Your task to perform on an android device: Is it going to rain this weekend? Image 0: 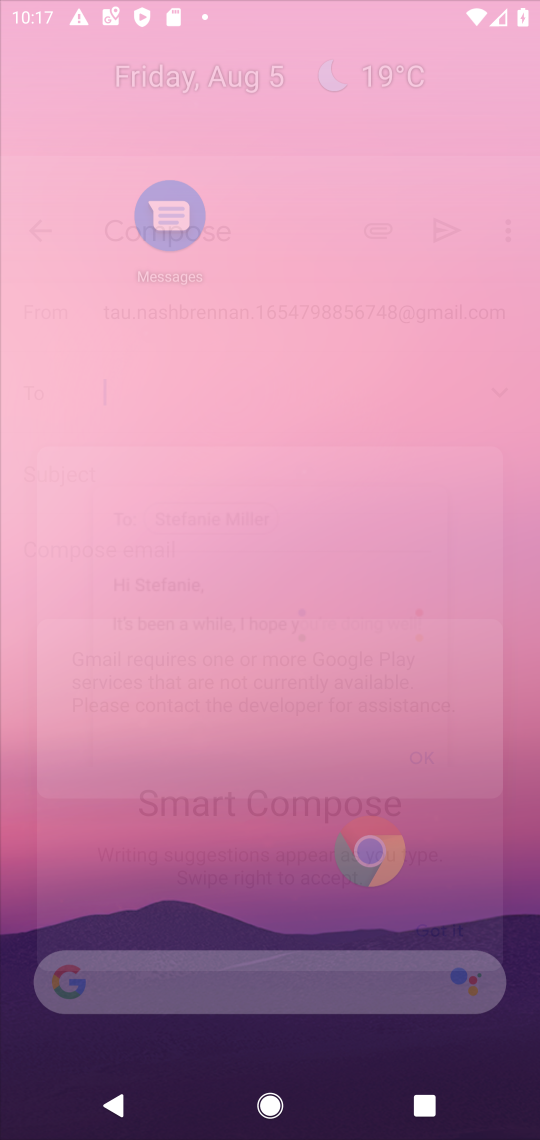
Step 0: press home button
Your task to perform on an android device: Is it going to rain this weekend? Image 1: 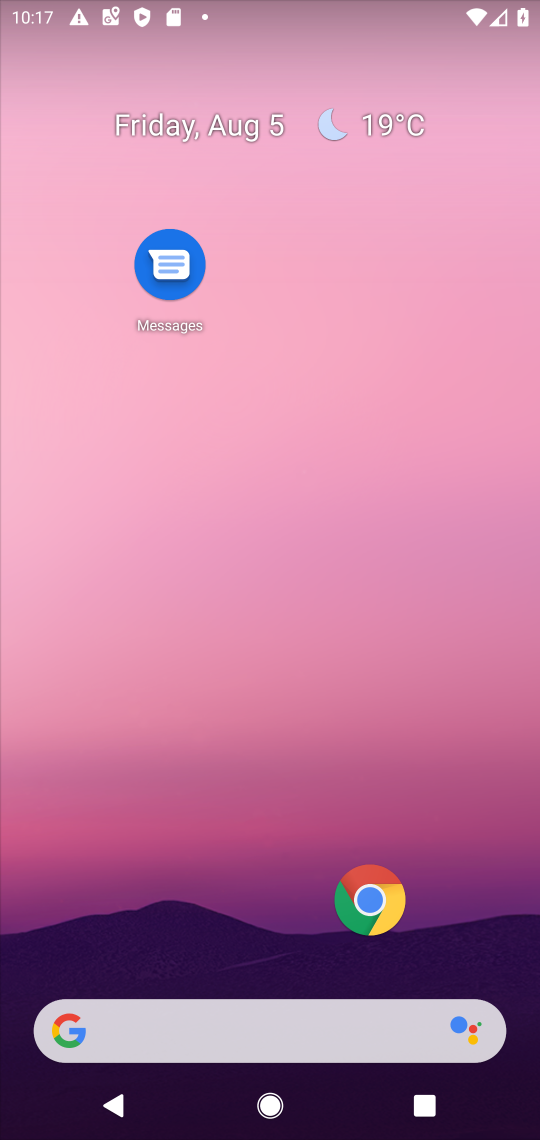
Step 1: drag from (288, 898) to (408, 37)
Your task to perform on an android device: Is it going to rain this weekend? Image 2: 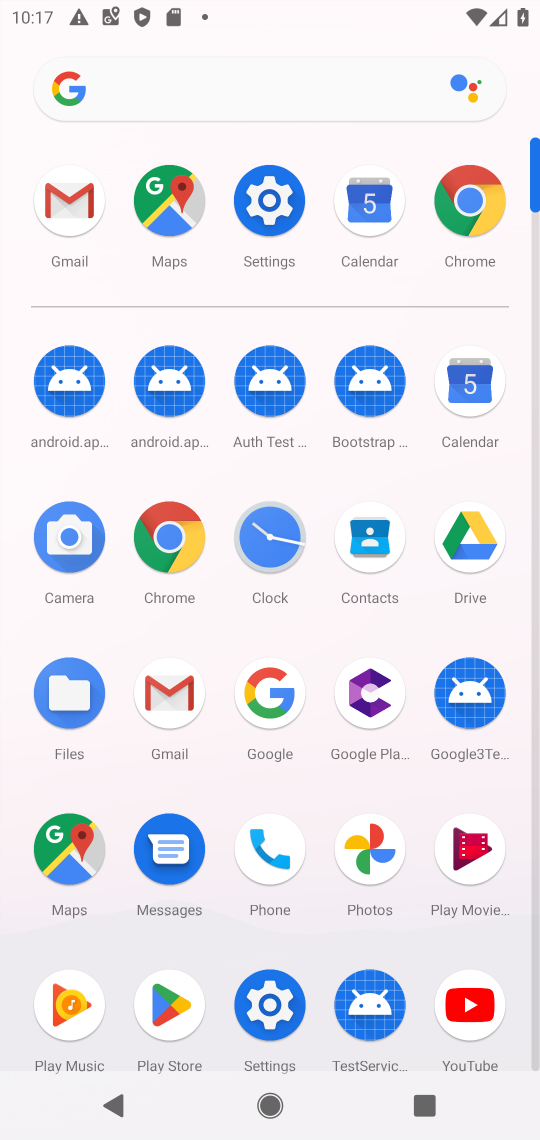
Step 2: click (170, 533)
Your task to perform on an android device: Is it going to rain this weekend? Image 3: 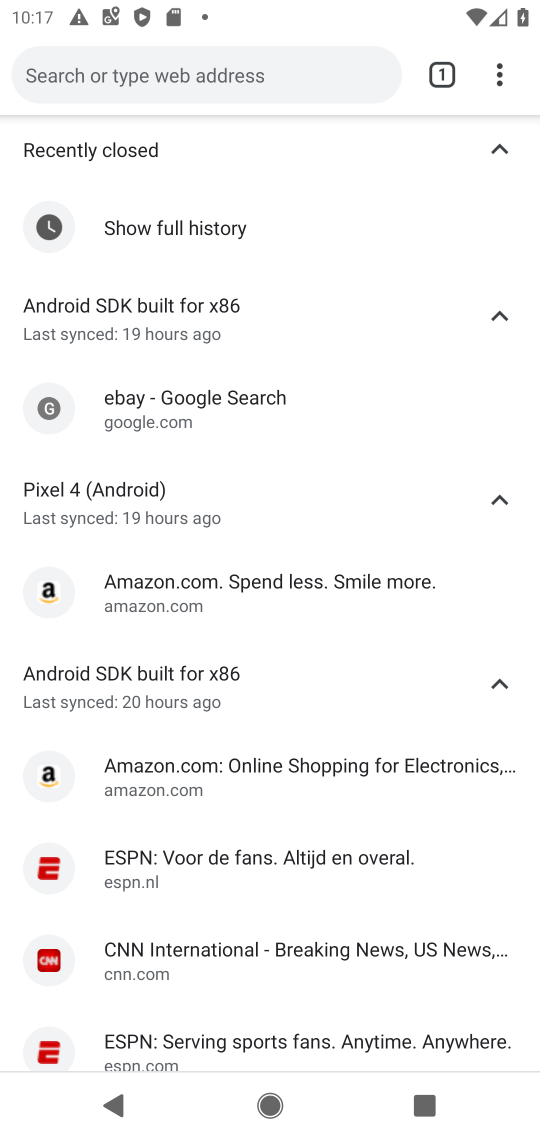
Step 3: click (179, 76)
Your task to perform on an android device: Is it going to rain this weekend? Image 4: 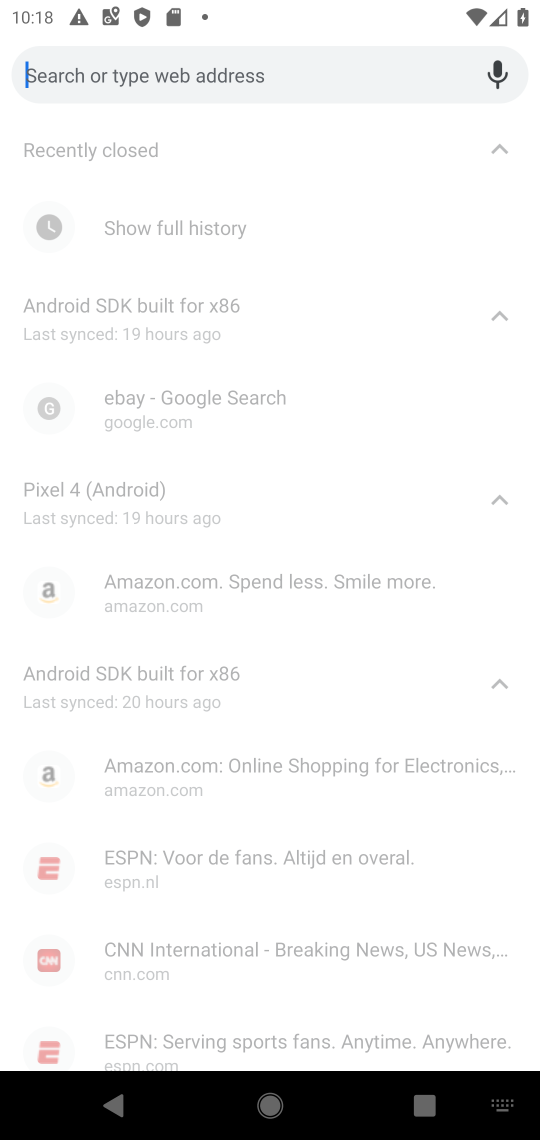
Step 4: type "Is it going to rain this weekend?"
Your task to perform on an android device: Is it going to rain this weekend? Image 5: 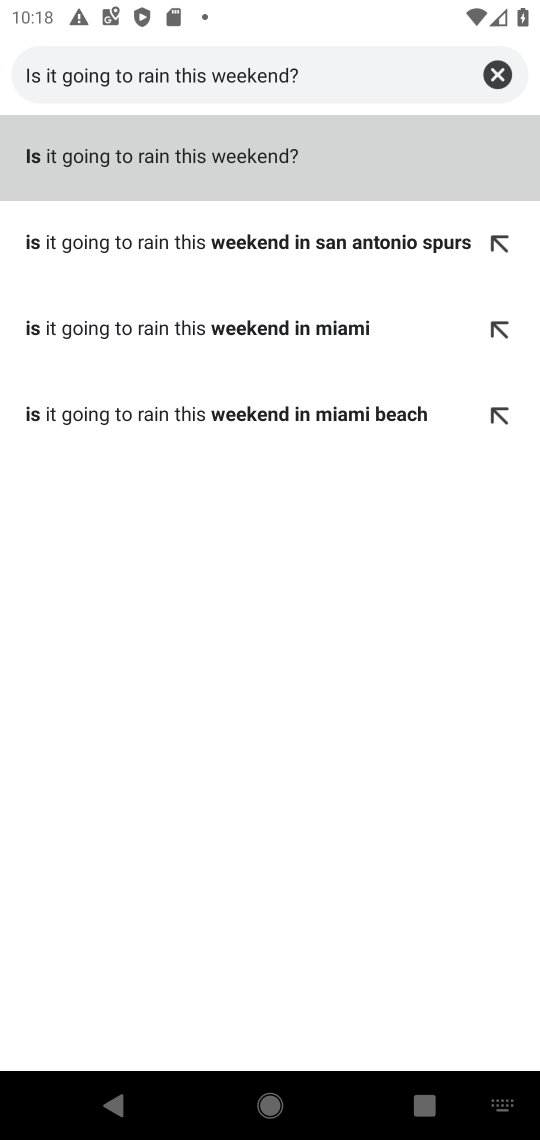
Step 5: click (145, 161)
Your task to perform on an android device: Is it going to rain this weekend? Image 6: 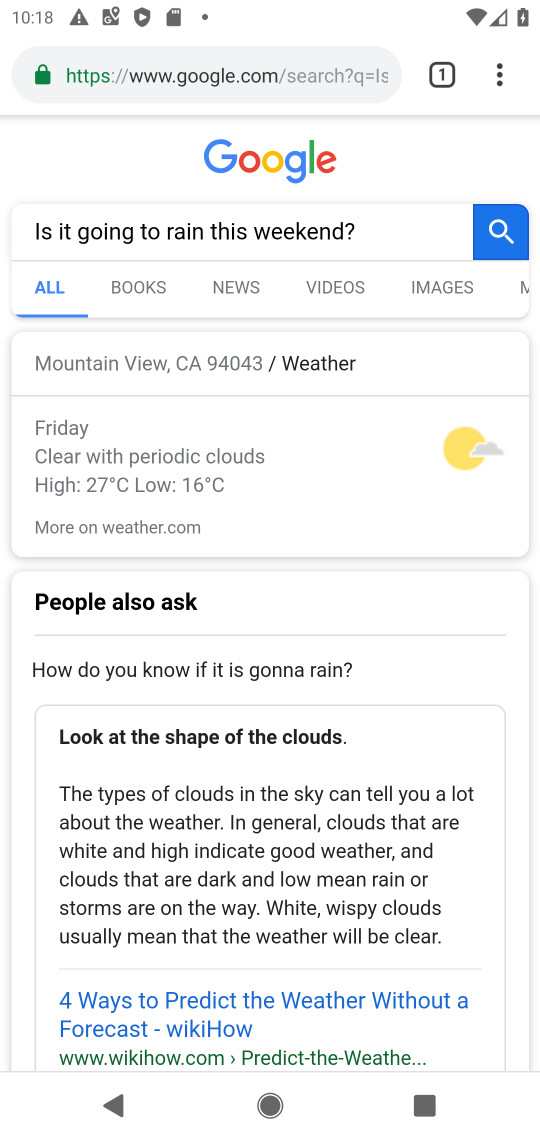
Step 6: task complete